Your task to perform on an android device: change your default location settings in chrome Image 0: 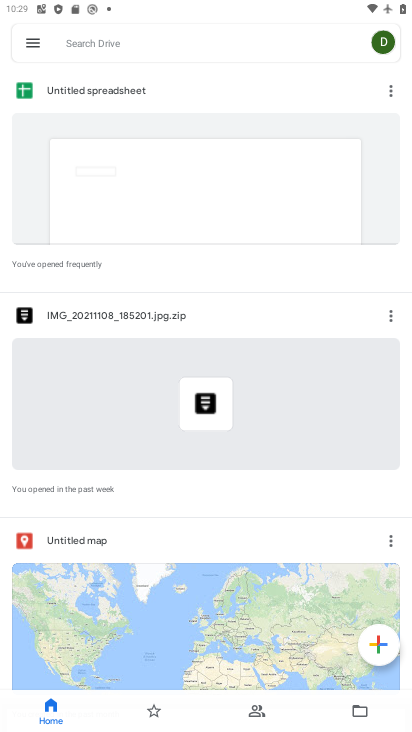
Step 0: press home button
Your task to perform on an android device: change your default location settings in chrome Image 1: 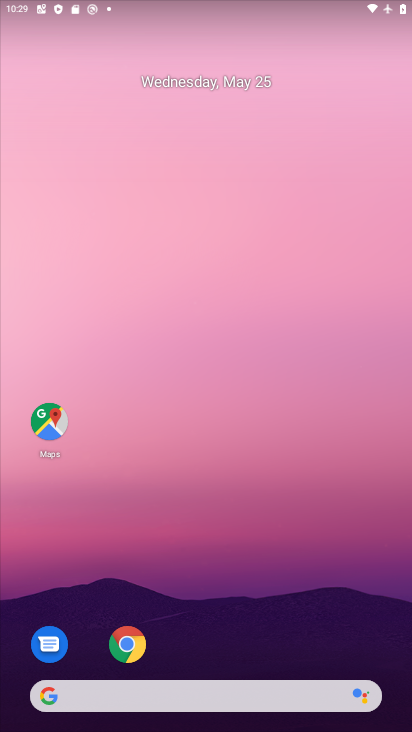
Step 1: click (136, 645)
Your task to perform on an android device: change your default location settings in chrome Image 2: 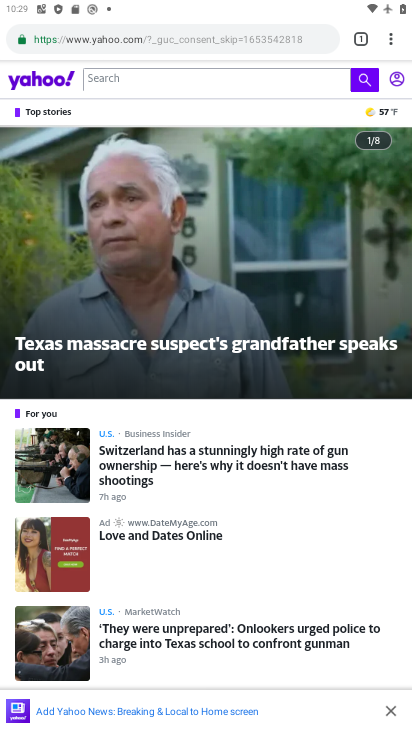
Step 2: click (386, 37)
Your task to perform on an android device: change your default location settings in chrome Image 3: 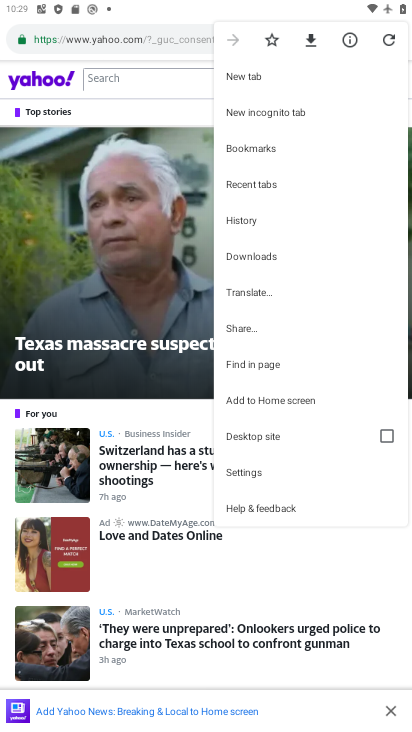
Step 3: click (254, 468)
Your task to perform on an android device: change your default location settings in chrome Image 4: 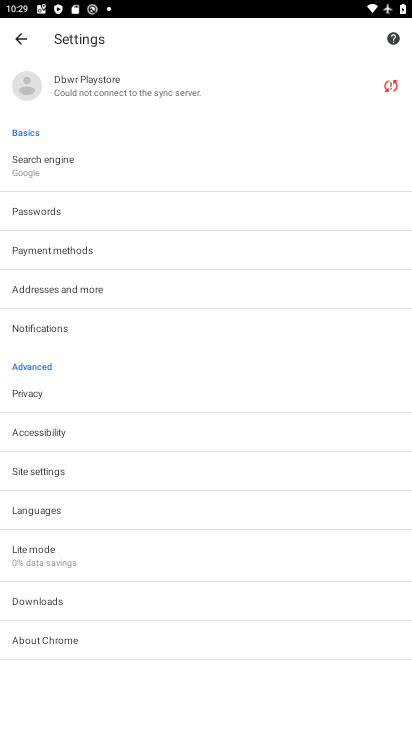
Step 4: click (66, 467)
Your task to perform on an android device: change your default location settings in chrome Image 5: 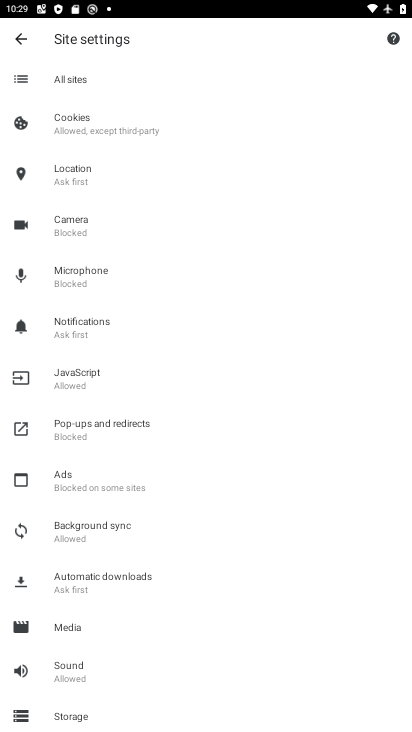
Step 5: click (130, 184)
Your task to perform on an android device: change your default location settings in chrome Image 6: 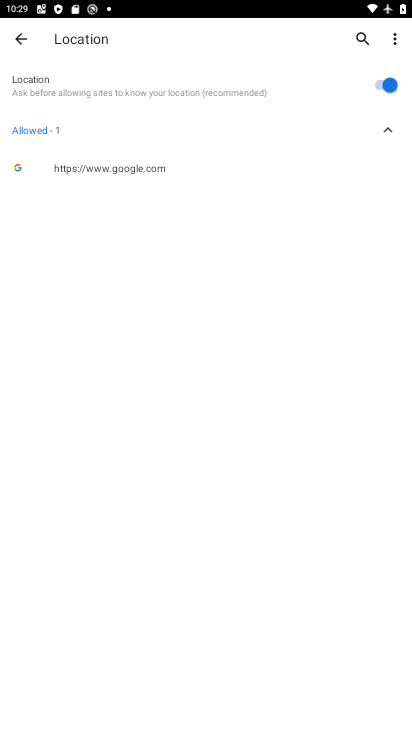
Step 6: click (382, 97)
Your task to perform on an android device: change your default location settings in chrome Image 7: 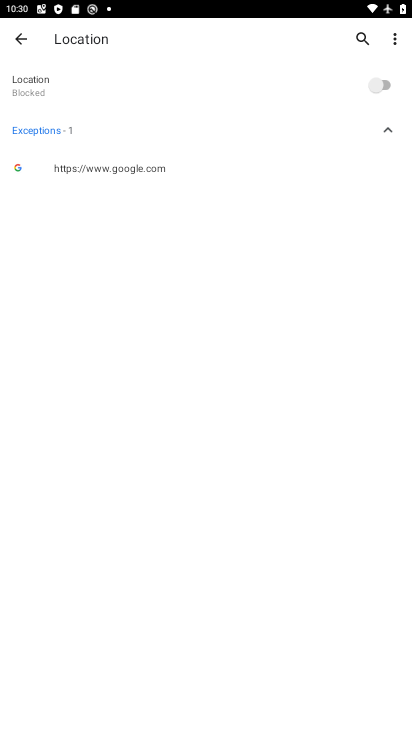
Step 7: task complete